Your task to perform on an android device: allow notifications from all sites in the chrome app Image 0: 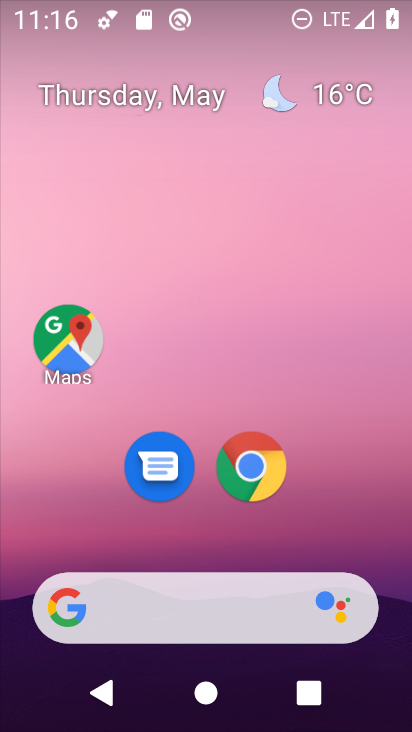
Step 0: drag from (312, 500) to (354, 157)
Your task to perform on an android device: allow notifications from all sites in the chrome app Image 1: 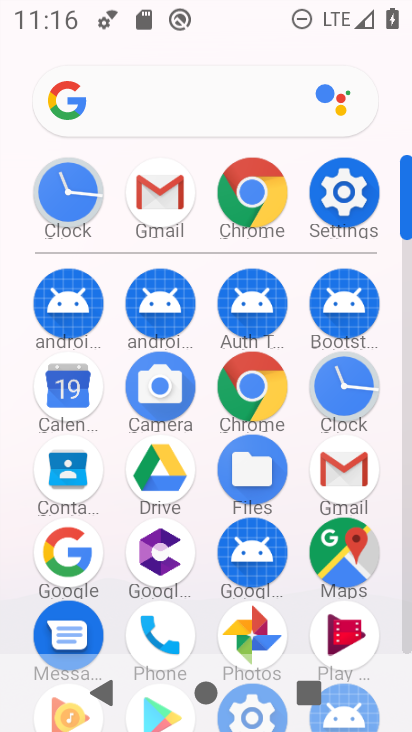
Step 1: click (339, 185)
Your task to perform on an android device: allow notifications from all sites in the chrome app Image 2: 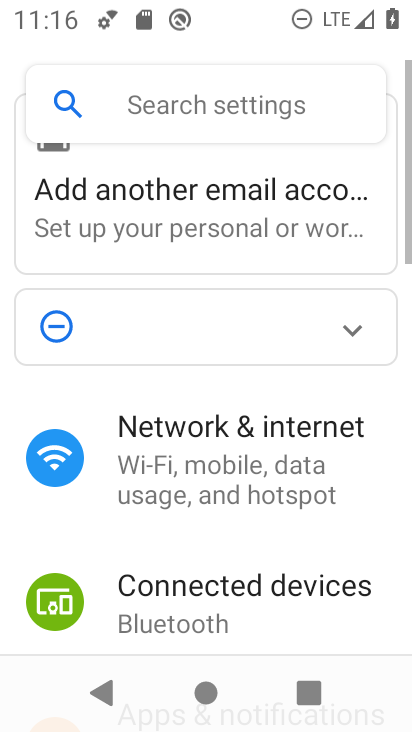
Step 2: drag from (220, 527) to (294, 101)
Your task to perform on an android device: allow notifications from all sites in the chrome app Image 3: 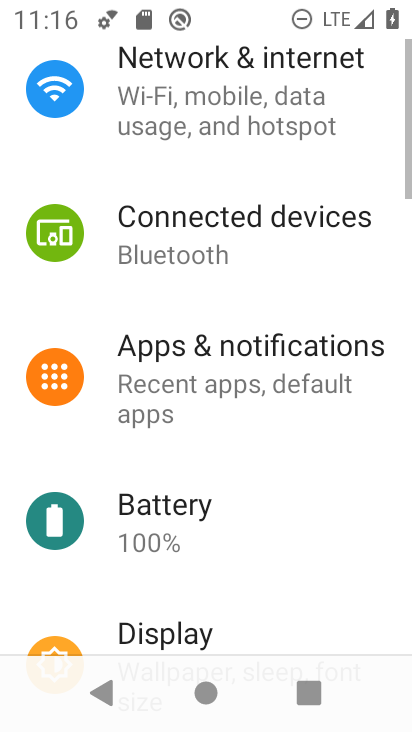
Step 3: drag from (182, 523) to (252, 150)
Your task to perform on an android device: allow notifications from all sites in the chrome app Image 4: 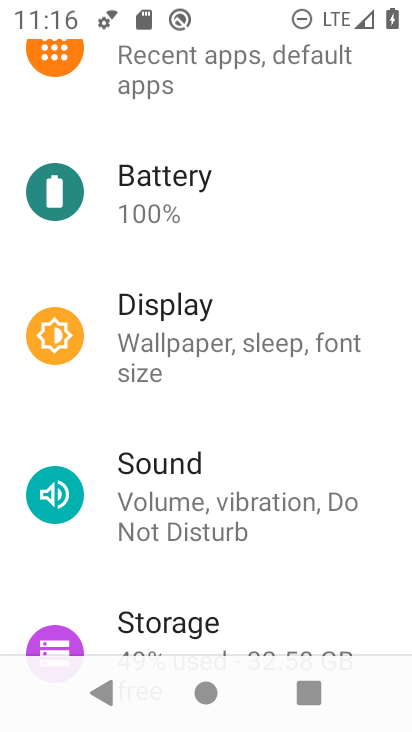
Step 4: drag from (227, 555) to (289, 185)
Your task to perform on an android device: allow notifications from all sites in the chrome app Image 5: 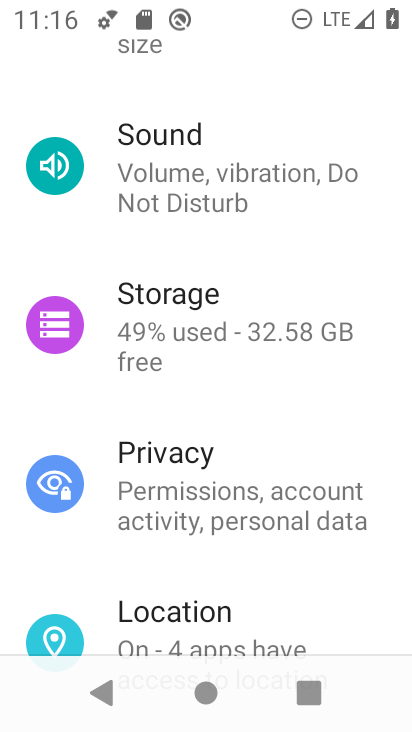
Step 5: drag from (208, 551) to (286, 204)
Your task to perform on an android device: allow notifications from all sites in the chrome app Image 6: 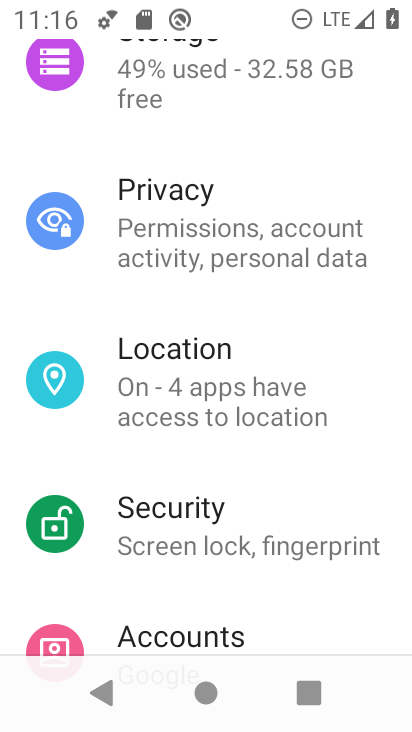
Step 6: drag from (202, 585) to (295, 170)
Your task to perform on an android device: allow notifications from all sites in the chrome app Image 7: 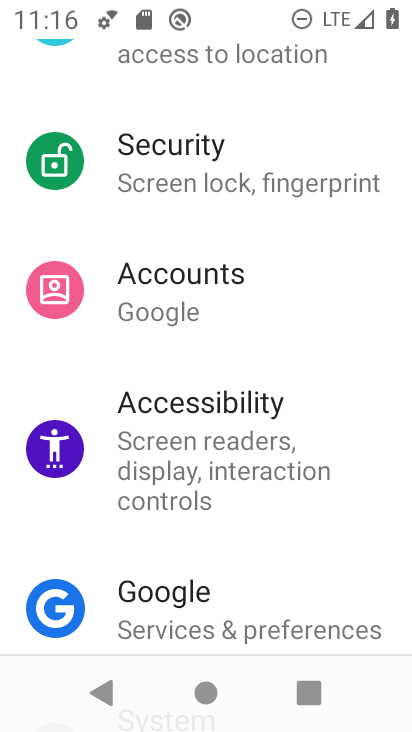
Step 7: drag from (262, 170) to (199, 634)
Your task to perform on an android device: allow notifications from all sites in the chrome app Image 8: 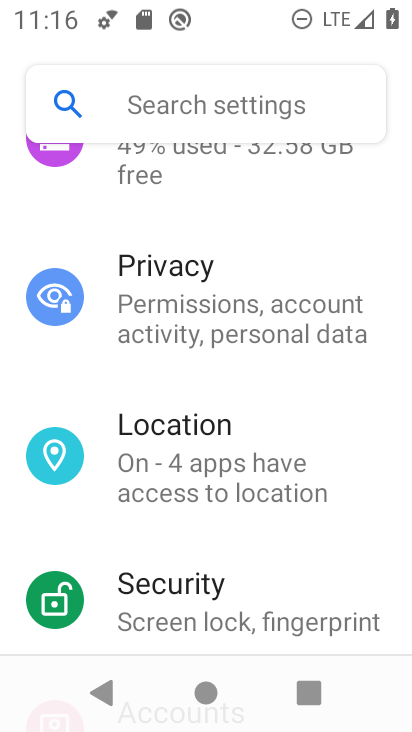
Step 8: press home button
Your task to perform on an android device: allow notifications from all sites in the chrome app Image 9: 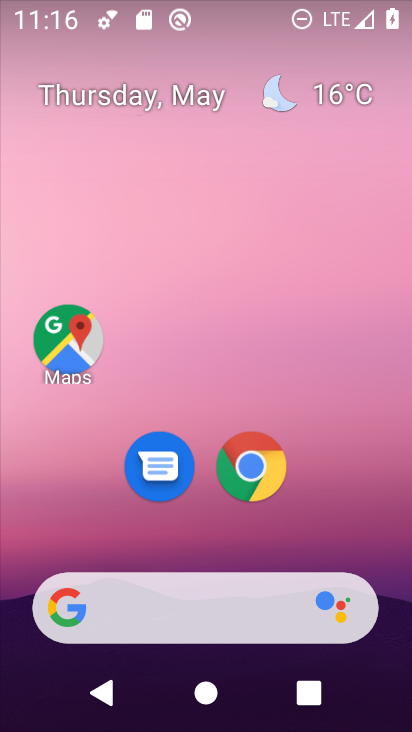
Step 9: click (243, 472)
Your task to perform on an android device: allow notifications from all sites in the chrome app Image 10: 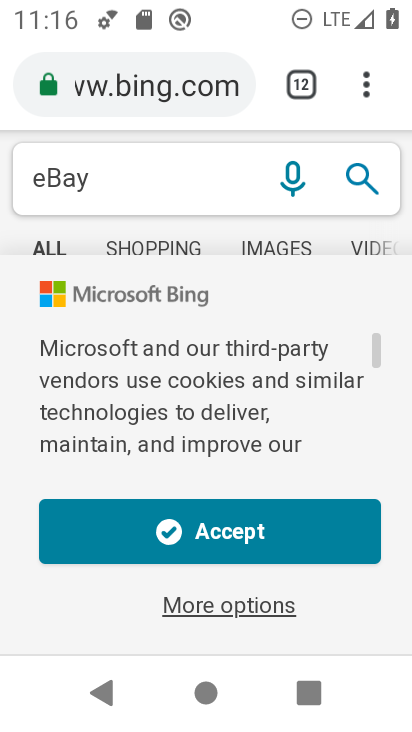
Step 10: click (363, 92)
Your task to perform on an android device: allow notifications from all sites in the chrome app Image 11: 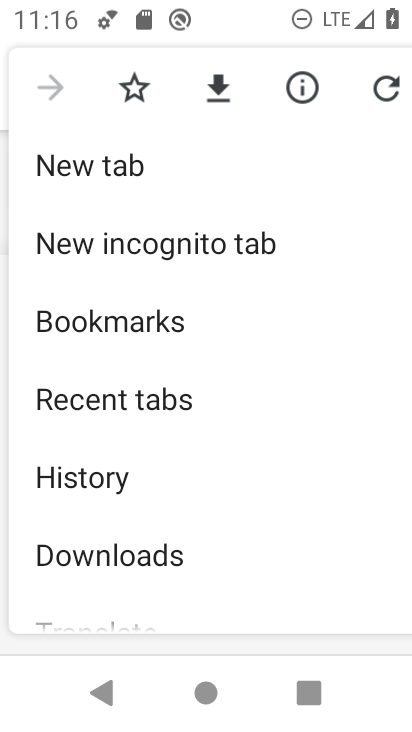
Step 11: drag from (144, 500) to (234, 220)
Your task to perform on an android device: allow notifications from all sites in the chrome app Image 12: 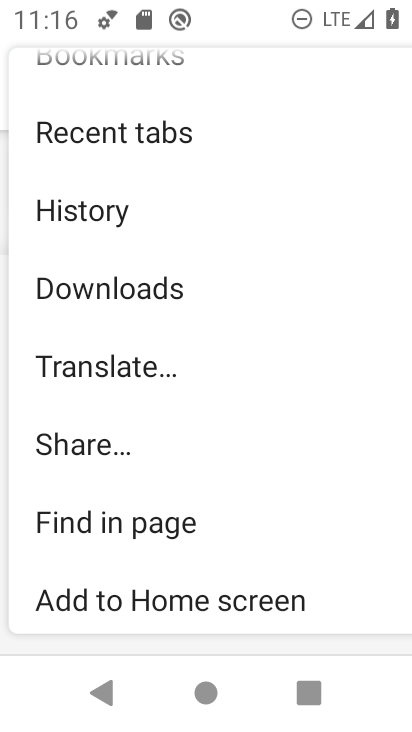
Step 12: drag from (142, 536) to (246, 194)
Your task to perform on an android device: allow notifications from all sites in the chrome app Image 13: 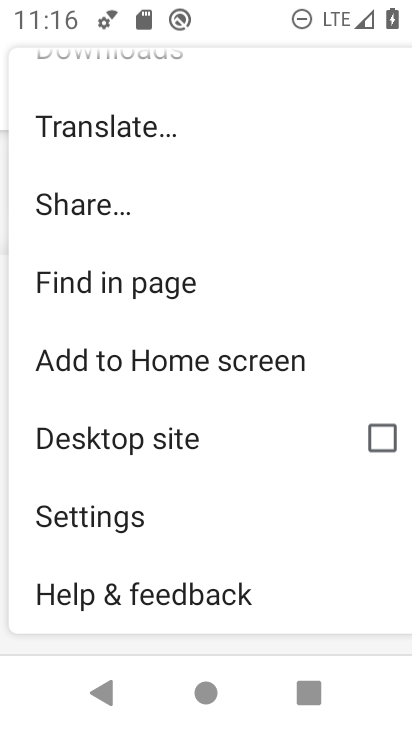
Step 13: drag from (149, 531) to (224, 252)
Your task to perform on an android device: allow notifications from all sites in the chrome app Image 14: 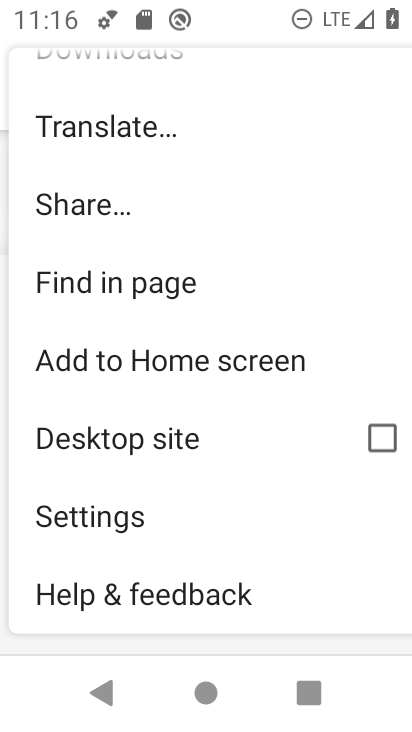
Step 14: click (121, 500)
Your task to perform on an android device: allow notifications from all sites in the chrome app Image 15: 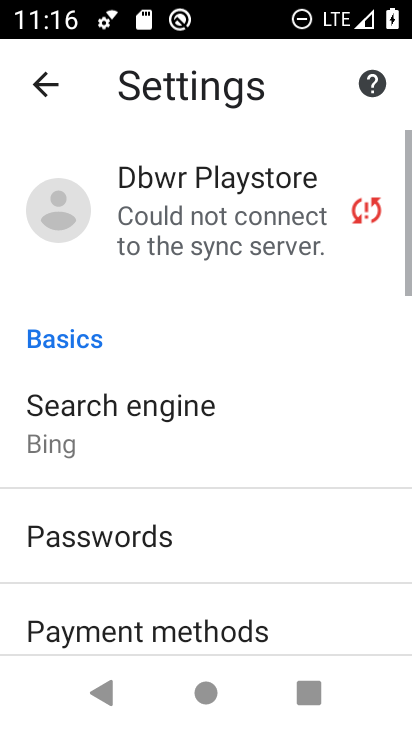
Step 15: drag from (175, 537) to (260, 212)
Your task to perform on an android device: allow notifications from all sites in the chrome app Image 16: 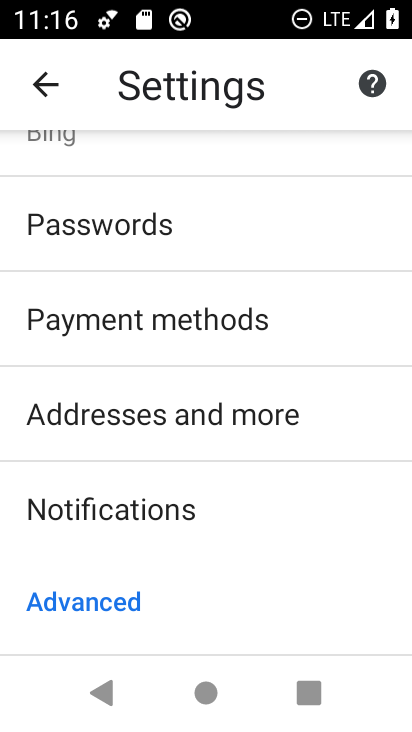
Step 16: click (232, 246)
Your task to perform on an android device: allow notifications from all sites in the chrome app Image 17: 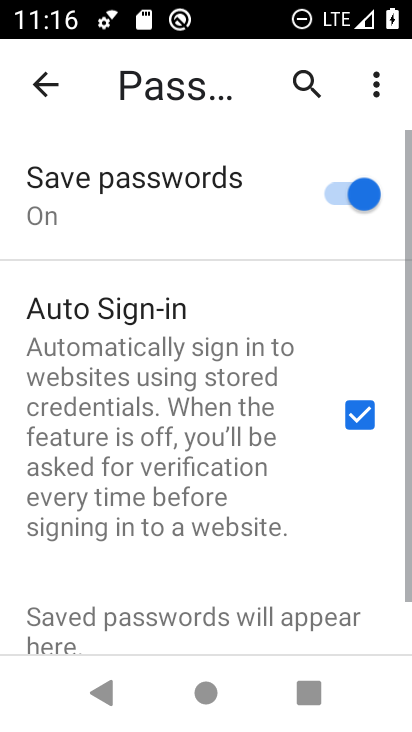
Step 17: click (55, 94)
Your task to perform on an android device: allow notifications from all sites in the chrome app Image 18: 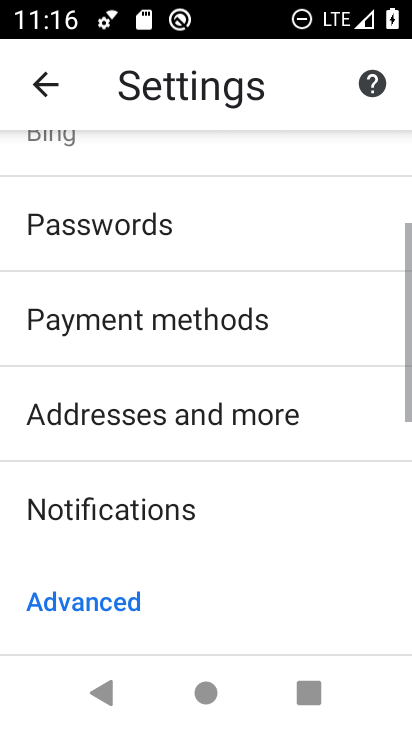
Step 18: drag from (201, 538) to (273, 212)
Your task to perform on an android device: allow notifications from all sites in the chrome app Image 19: 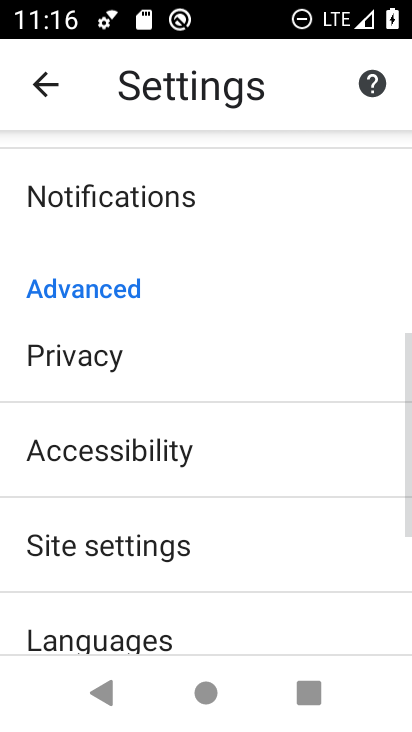
Step 19: click (233, 551)
Your task to perform on an android device: allow notifications from all sites in the chrome app Image 20: 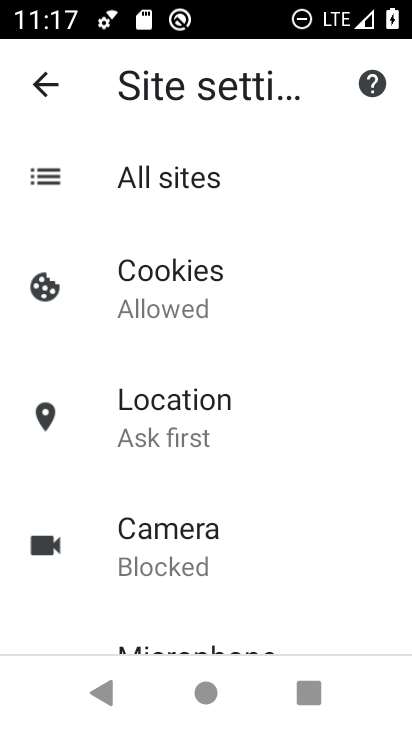
Step 20: task complete